Your task to perform on an android device: Open CNN.com Image 0: 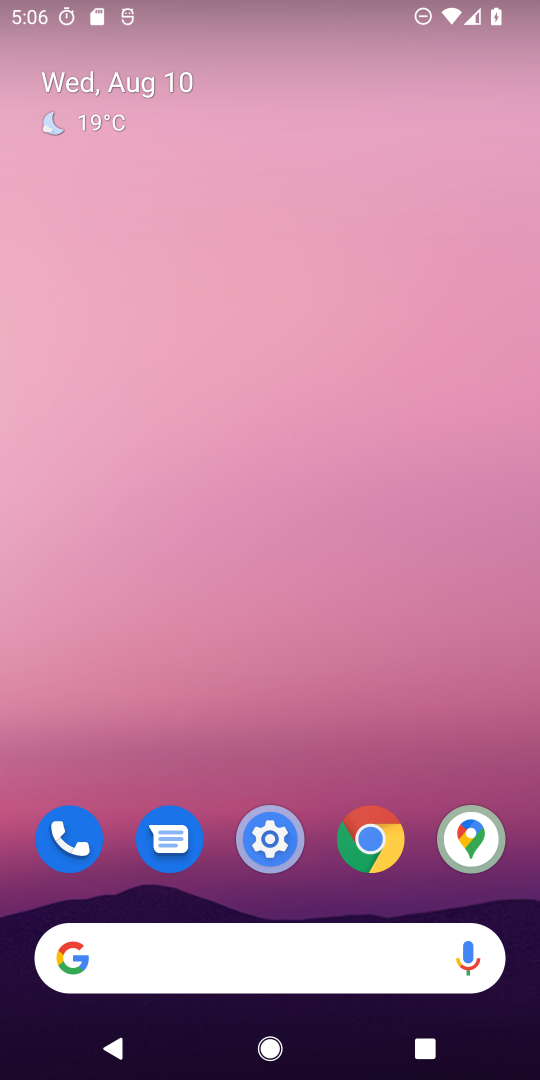
Step 0: click (238, 949)
Your task to perform on an android device: Open CNN.com Image 1: 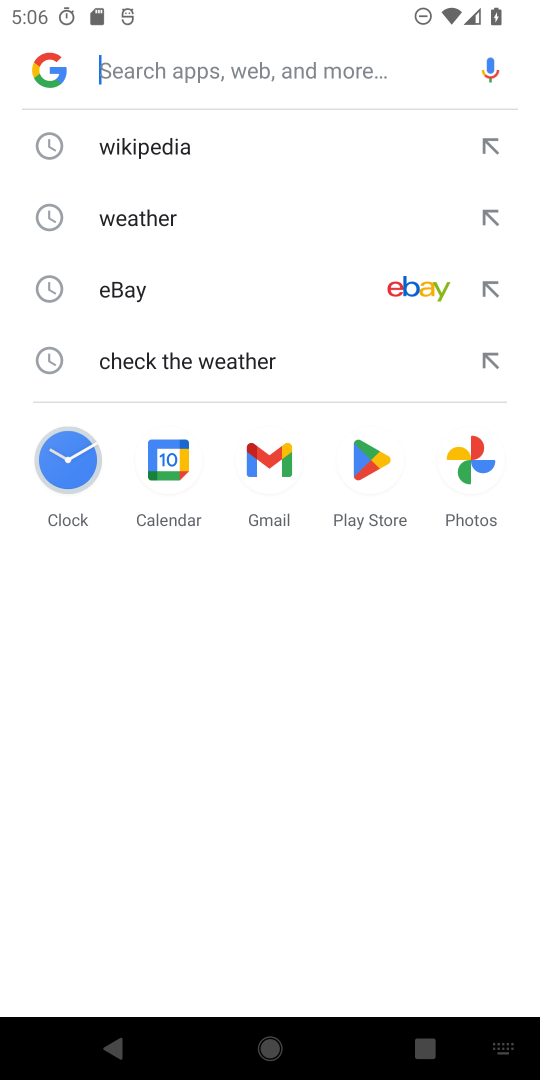
Step 1: type " CNN.com"
Your task to perform on an android device: Open CNN.com Image 2: 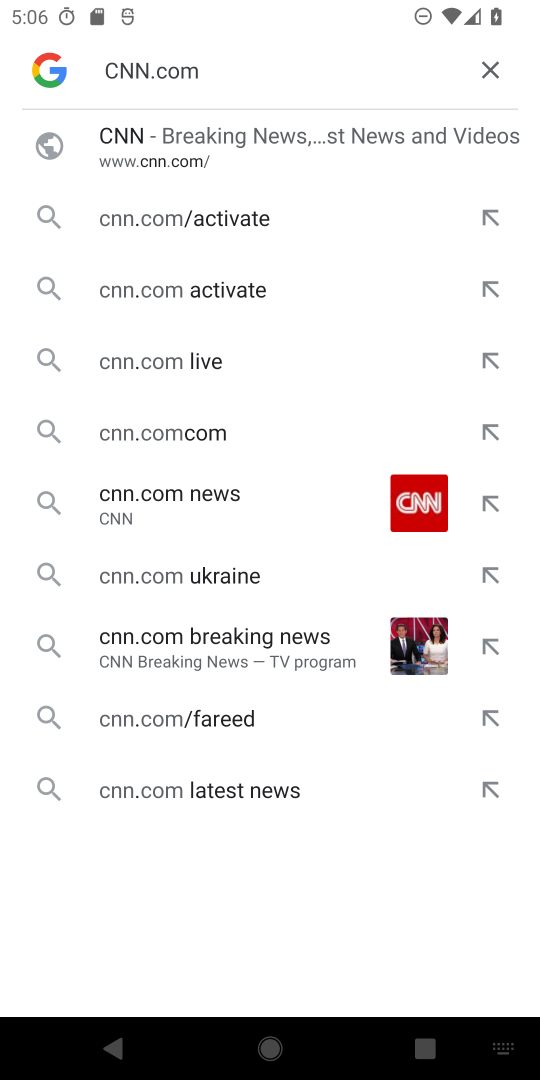
Step 2: click (142, 146)
Your task to perform on an android device: Open CNN.com Image 3: 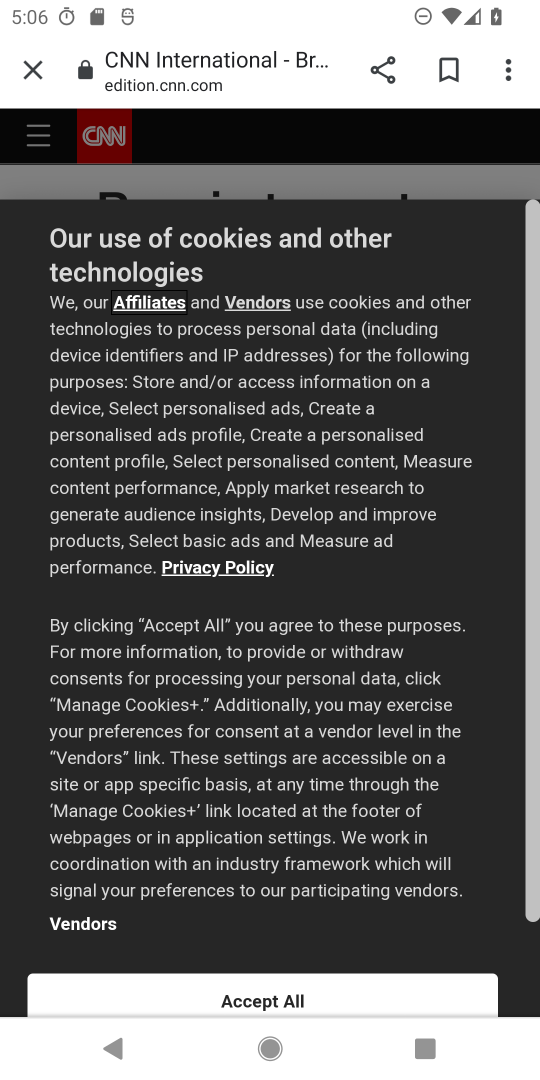
Step 3: task complete